Your task to perform on an android device: Open ESPN.com Image 0: 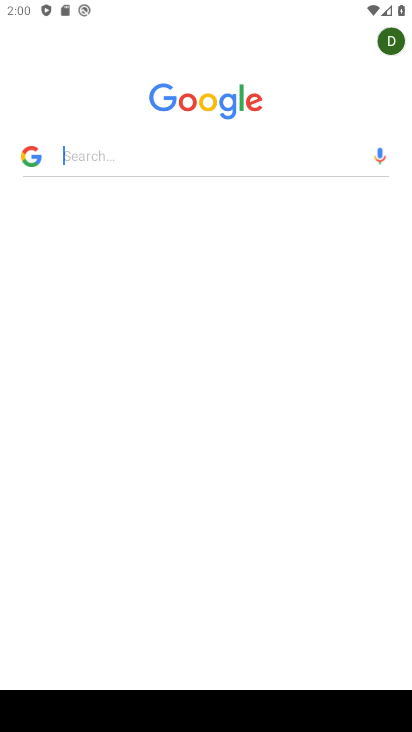
Step 0: press home button
Your task to perform on an android device: Open ESPN.com Image 1: 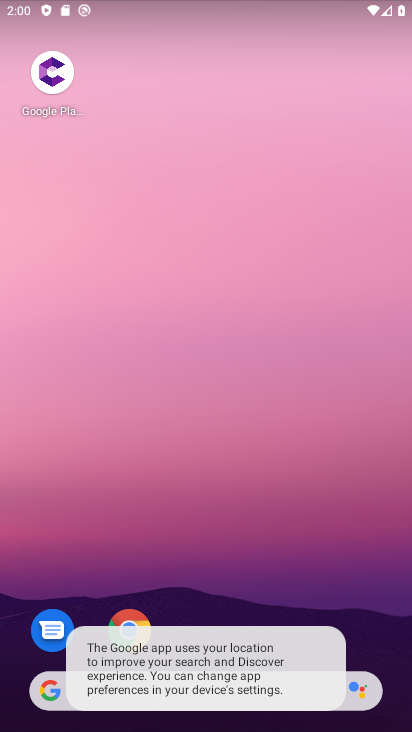
Step 1: drag from (307, 567) to (296, 206)
Your task to perform on an android device: Open ESPN.com Image 2: 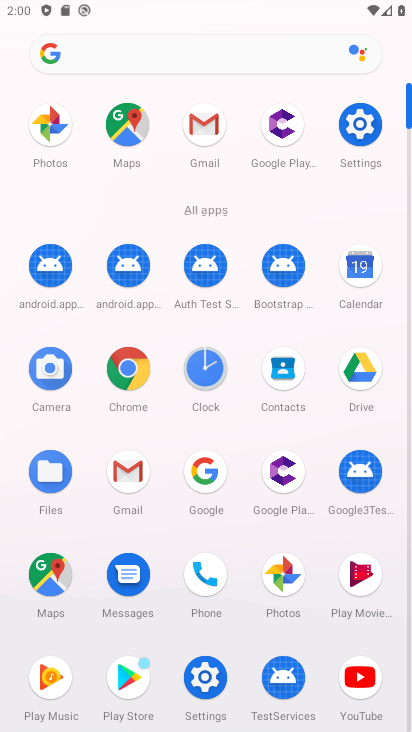
Step 2: click (137, 368)
Your task to perform on an android device: Open ESPN.com Image 3: 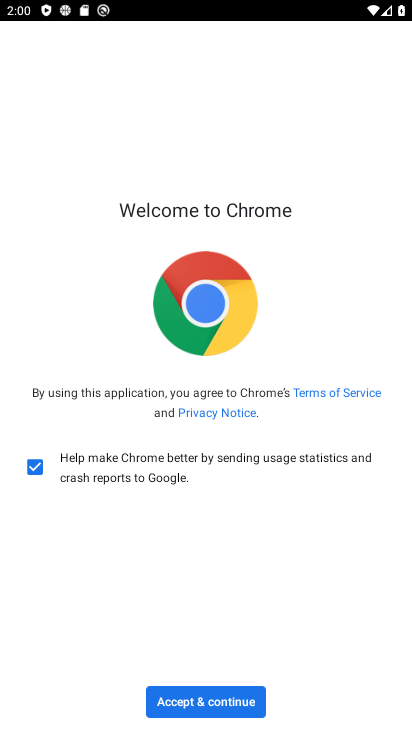
Step 3: click (189, 707)
Your task to perform on an android device: Open ESPN.com Image 4: 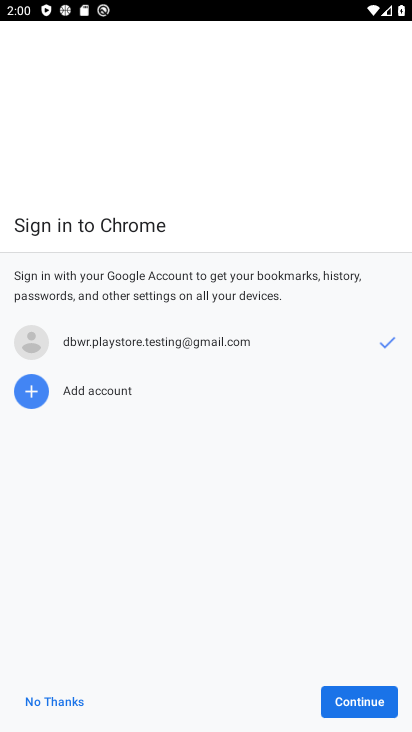
Step 4: click (353, 702)
Your task to perform on an android device: Open ESPN.com Image 5: 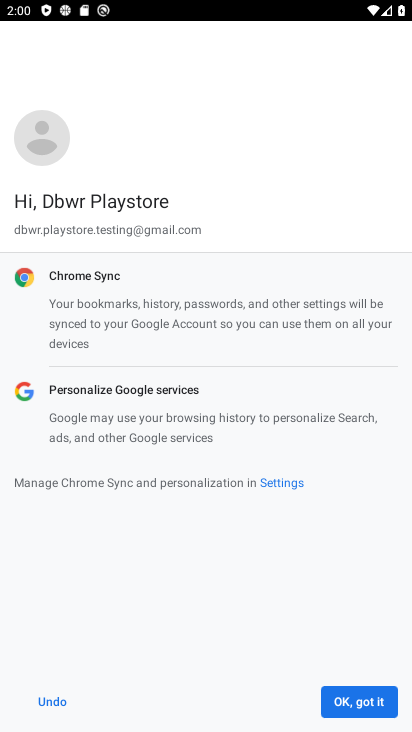
Step 5: click (353, 702)
Your task to perform on an android device: Open ESPN.com Image 6: 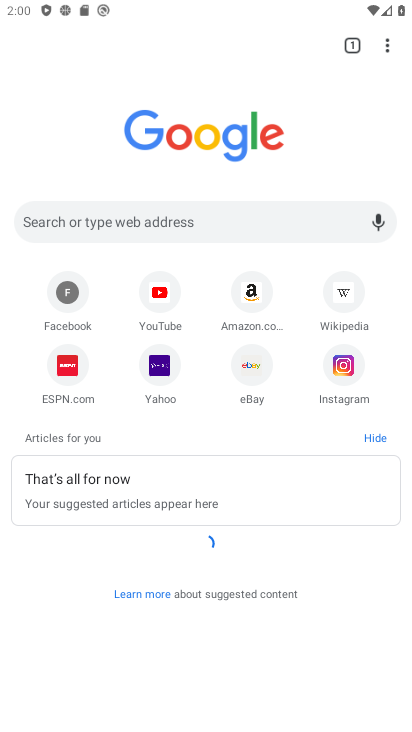
Step 6: click (213, 226)
Your task to perform on an android device: Open ESPN.com Image 7: 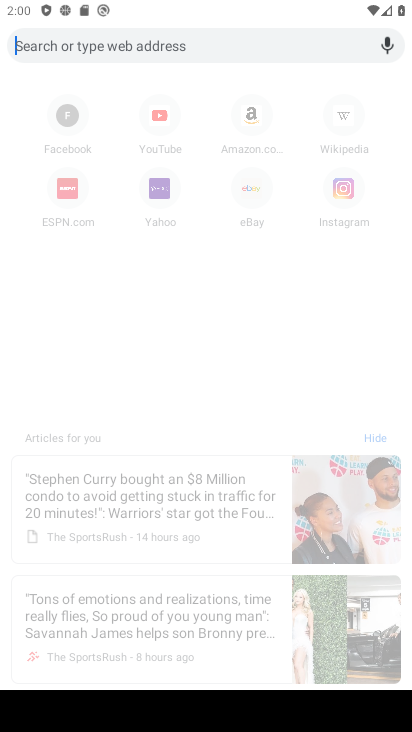
Step 7: type "espn.com"
Your task to perform on an android device: Open ESPN.com Image 8: 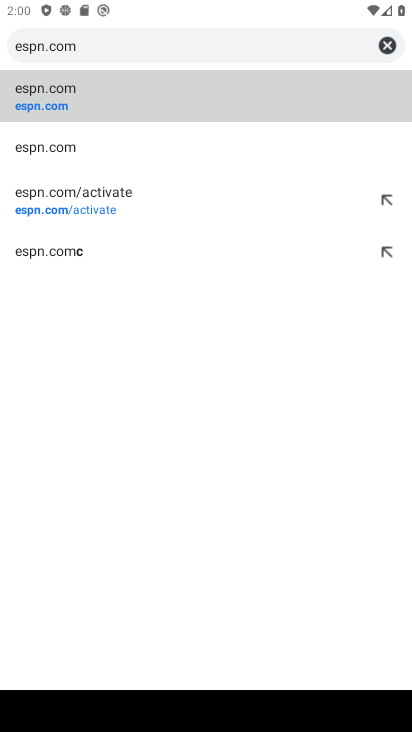
Step 8: click (103, 110)
Your task to perform on an android device: Open ESPN.com Image 9: 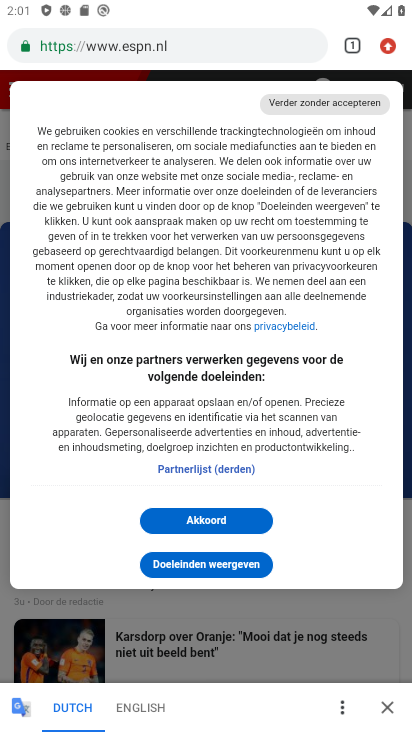
Step 9: task complete